Your task to perform on an android device: open sync settings in chrome Image 0: 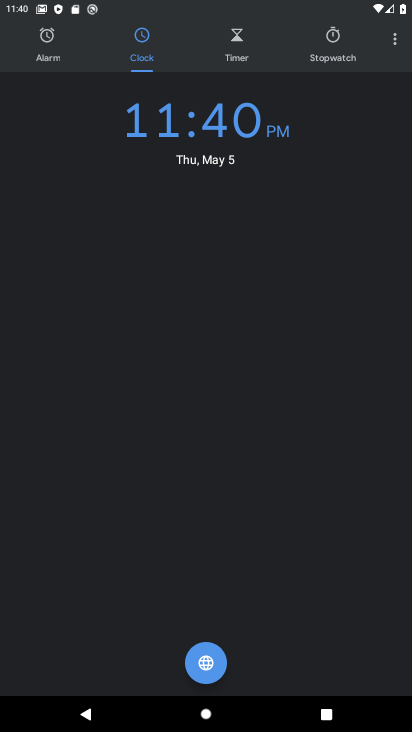
Step 0: press home button
Your task to perform on an android device: open sync settings in chrome Image 1: 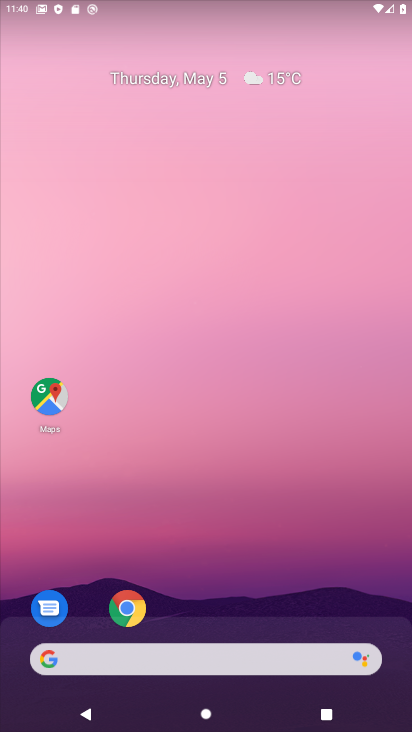
Step 1: click (136, 613)
Your task to perform on an android device: open sync settings in chrome Image 2: 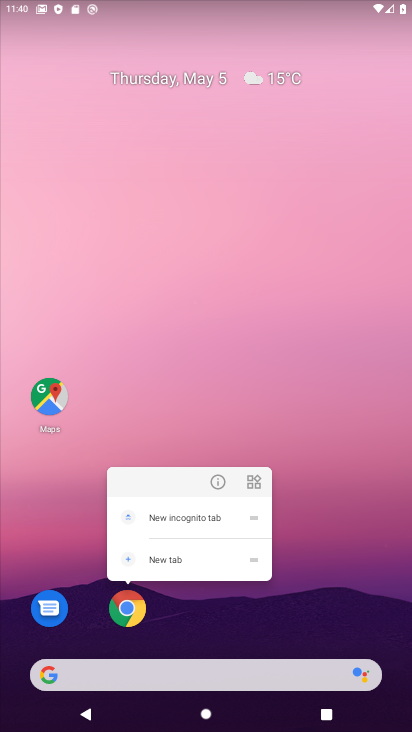
Step 2: click (130, 616)
Your task to perform on an android device: open sync settings in chrome Image 3: 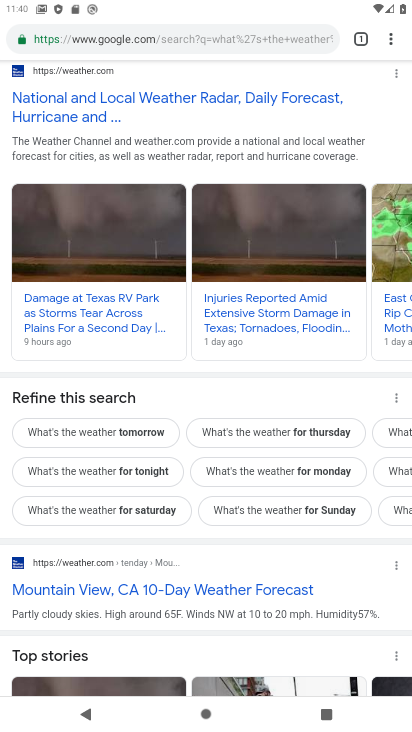
Step 3: click (390, 43)
Your task to perform on an android device: open sync settings in chrome Image 4: 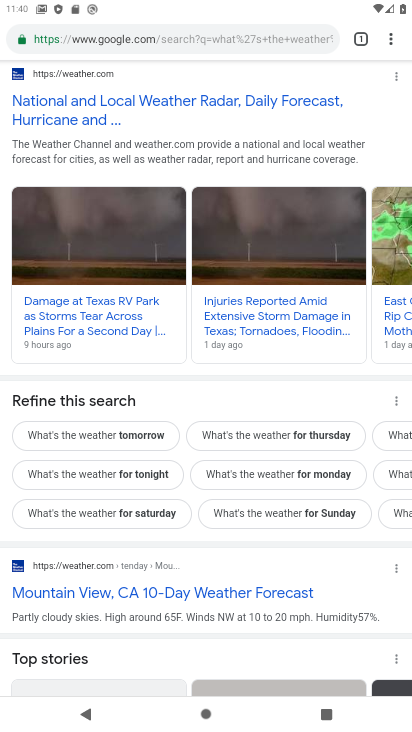
Step 4: drag from (391, 38) to (295, 434)
Your task to perform on an android device: open sync settings in chrome Image 5: 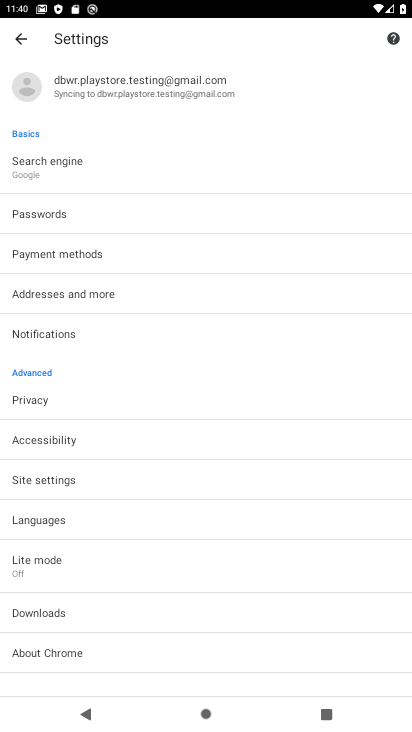
Step 5: click (68, 487)
Your task to perform on an android device: open sync settings in chrome Image 6: 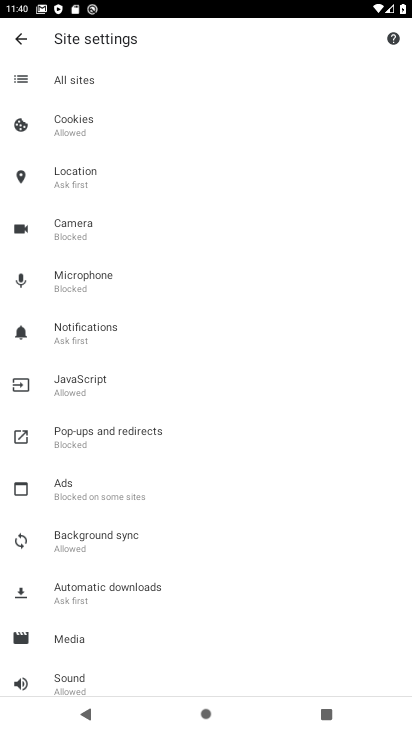
Step 6: drag from (172, 292) to (164, 556)
Your task to perform on an android device: open sync settings in chrome Image 7: 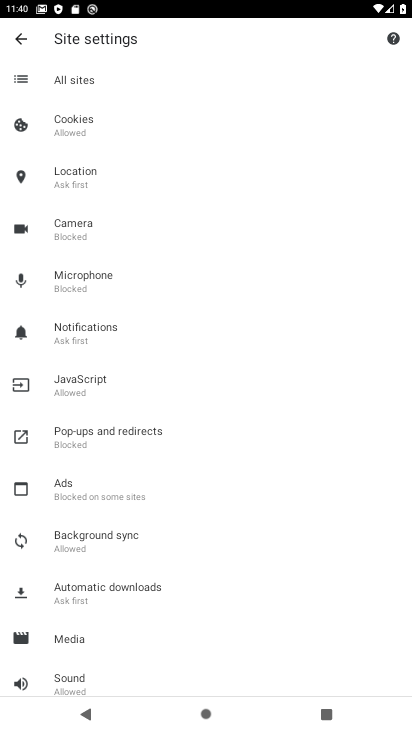
Step 7: click (161, 553)
Your task to perform on an android device: open sync settings in chrome Image 8: 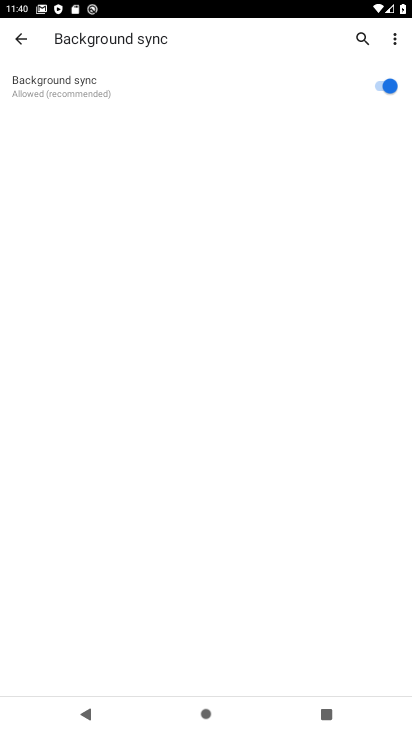
Step 8: task complete